Your task to perform on an android device: change the clock display to digital Image 0: 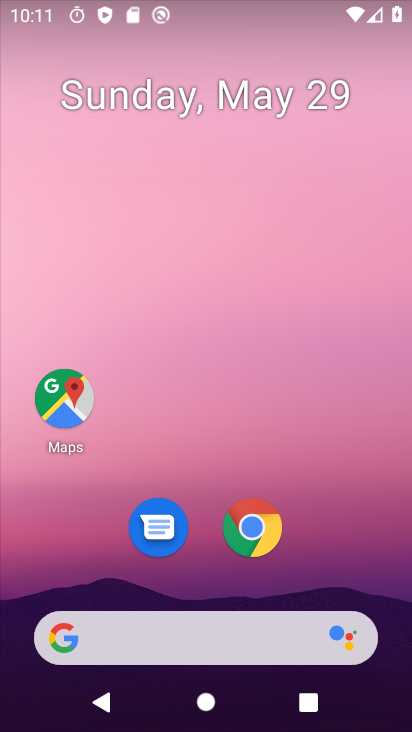
Step 0: drag from (320, 475) to (361, 93)
Your task to perform on an android device: change the clock display to digital Image 1: 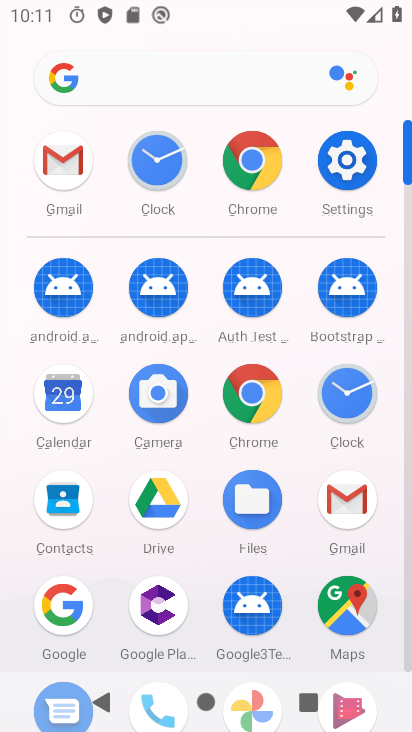
Step 1: click (344, 389)
Your task to perform on an android device: change the clock display to digital Image 2: 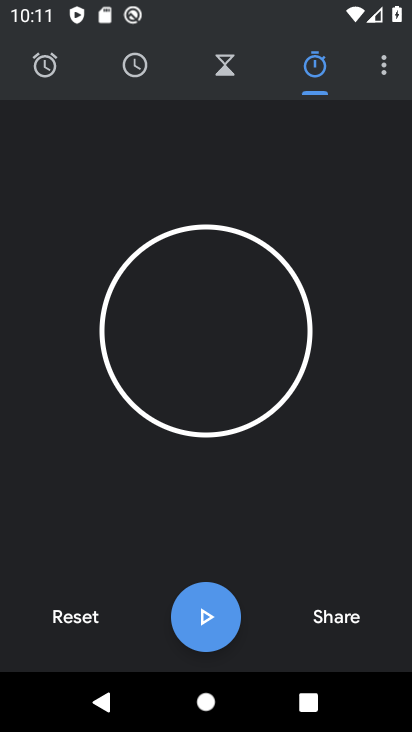
Step 2: click (392, 67)
Your task to perform on an android device: change the clock display to digital Image 3: 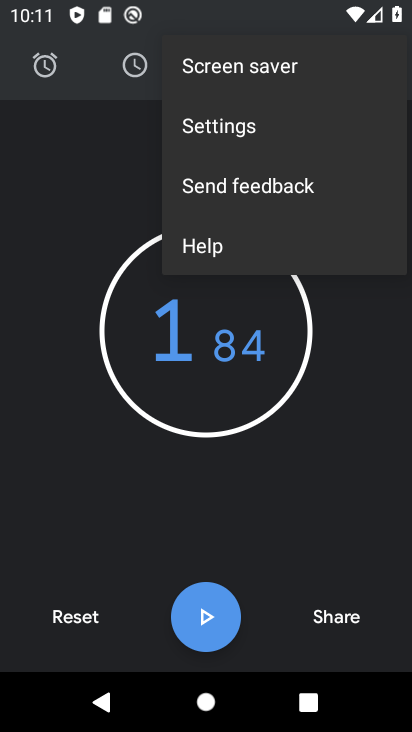
Step 3: click (260, 143)
Your task to perform on an android device: change the clock display to digital Image 4: 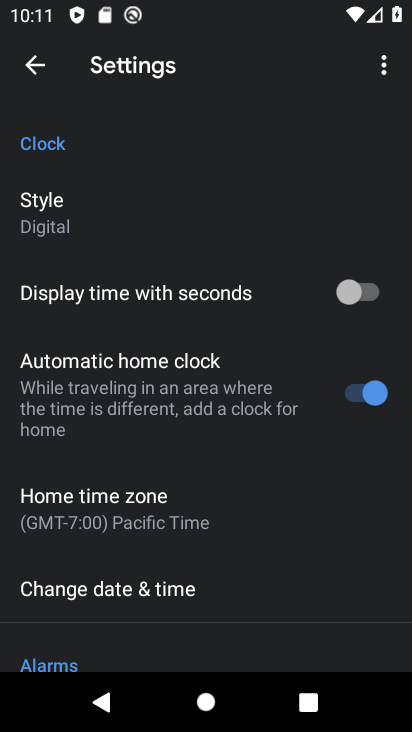
Step 4: task complete